Your task to perform on an android device: change text size in settings app Image 0: 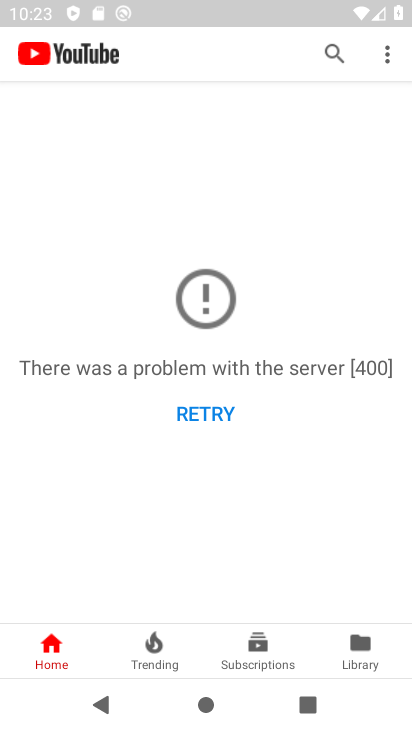
Step 0: press home button
Your task to perform on an android device: change text size in settings app Image 1: 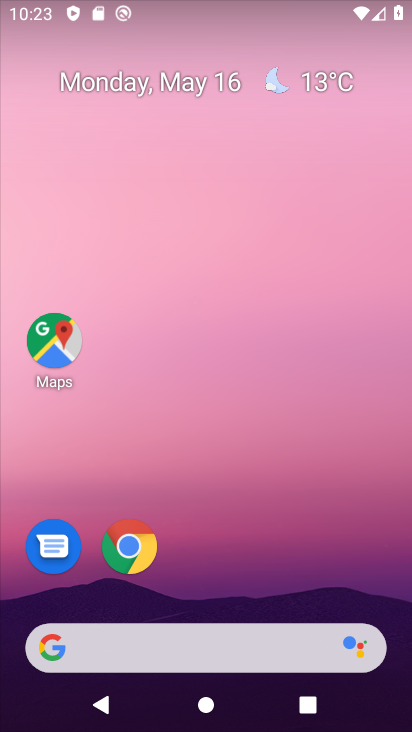
Step 1: drag from (285, 529) to (268, 0)
Your task to perform on an android device: change text size in settings app Image 2: 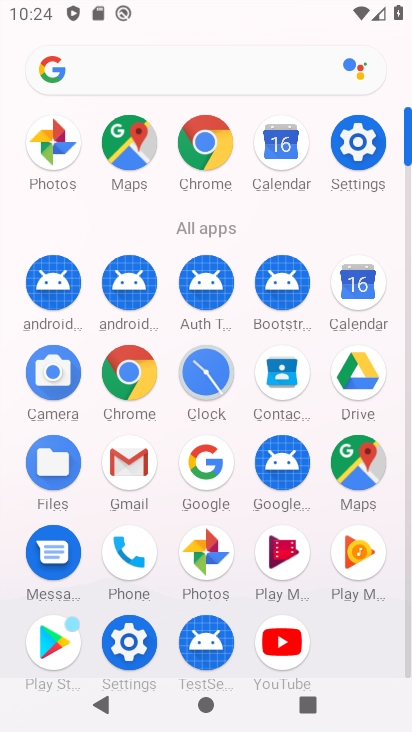
Step 2: click (357, 141)
Your task to perform on an android device: change text size in settings app Image 3: 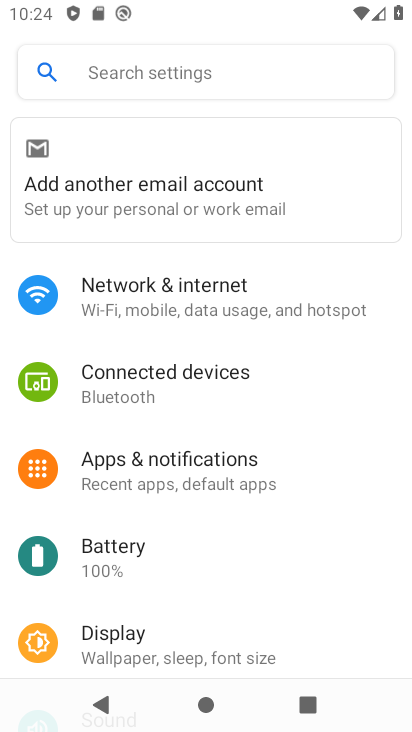
Step 3: drag from (121, 566) to (186, 233)
Your task to perform on an android device: change text size in settings app Image 4: 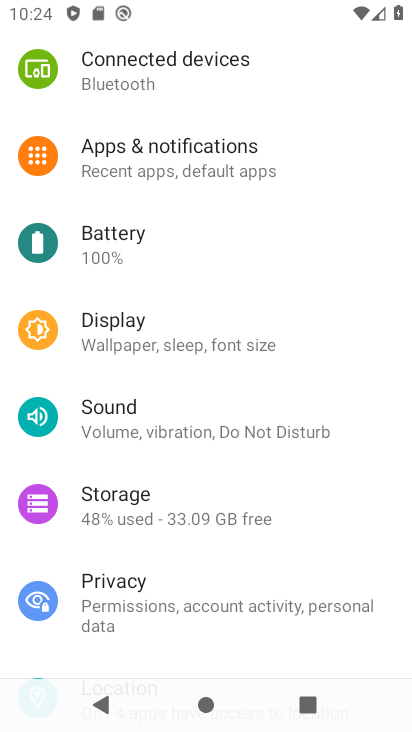
Step 4: click (216, 357)
Your task to perform on an android device: change text size in settings app Image 5: 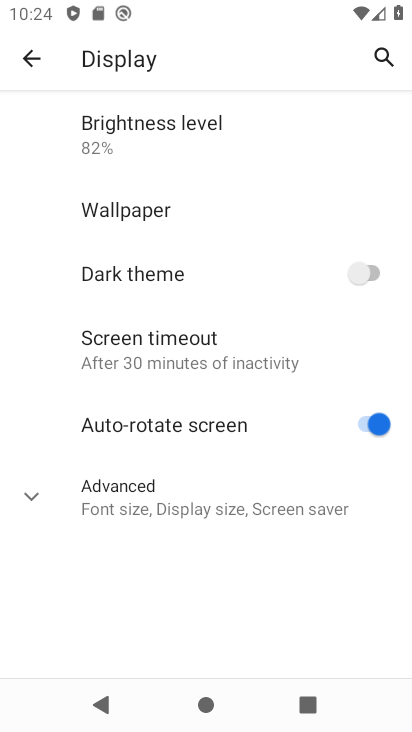
Step 5: click (196, 510)
Your task to perform on an android device: change text size in settings app Image 6: 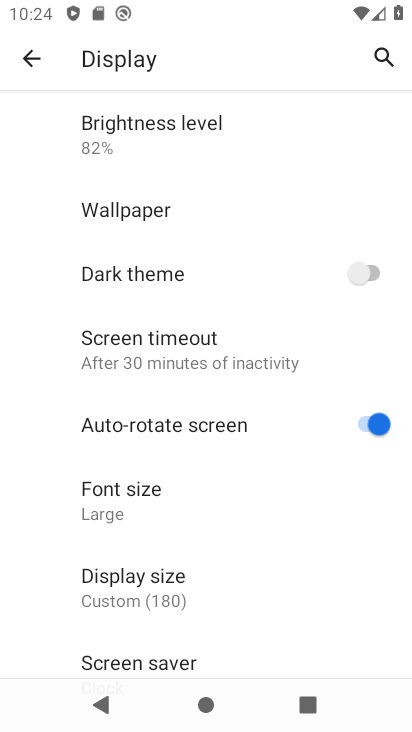
Step 6: click (124, 517)
Your task to perform on an android device: change text size in settings app Image 7: 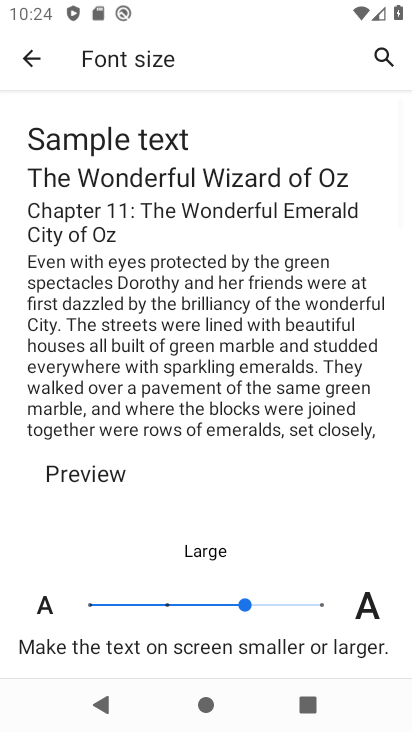
Step 7: click (192, 619)
Your task to perform on an android device: change text size in settings app Image 8: 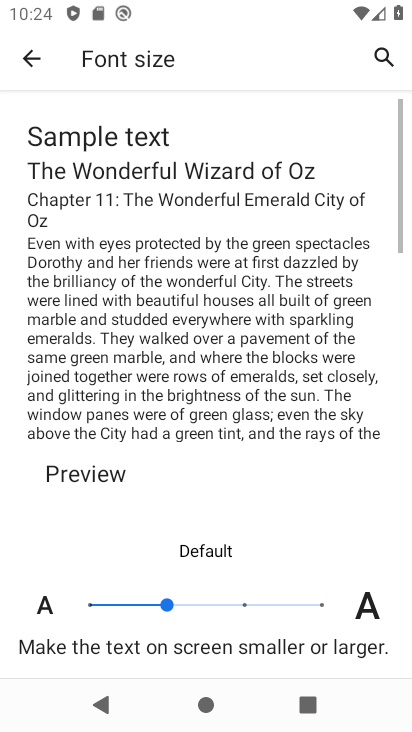
Step 8: click (194, 604)
Your task to perform on an android device: change text size in settings app Image 9: 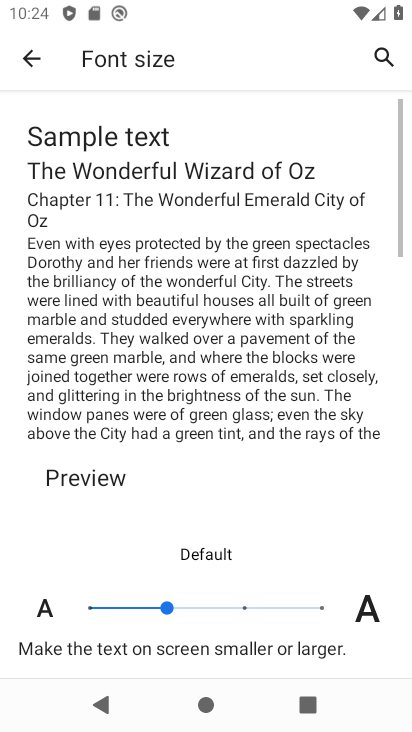
Step 9: task complete